Your task to perform on an android device: Open maps Image 0: 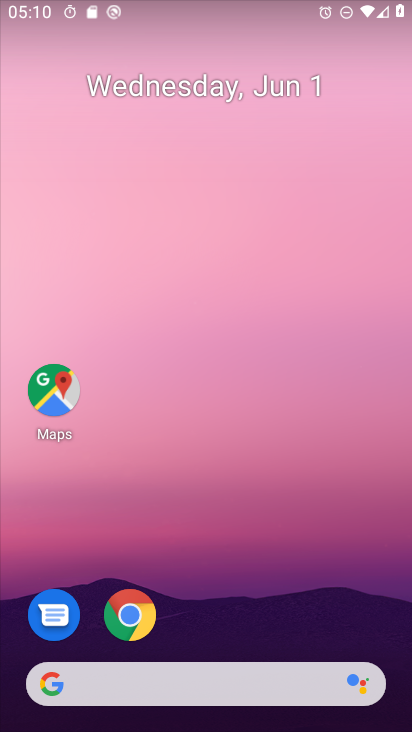
Step 0: drag from (326, 675) to (307, 82)
Your task to perform on an android device: Open maps Image 1: 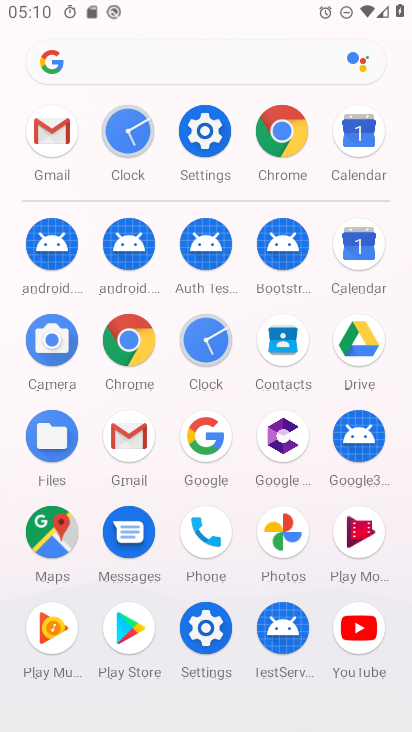
Step 1: click (43, 520)
Your task to perform on an android device: Open maps Image 2: 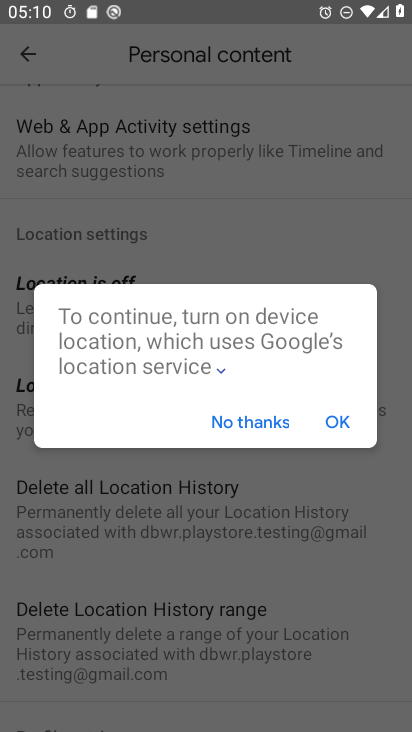
Step 2: click (288, 427)
Your task to perform on an android device: Open maps Image 3: 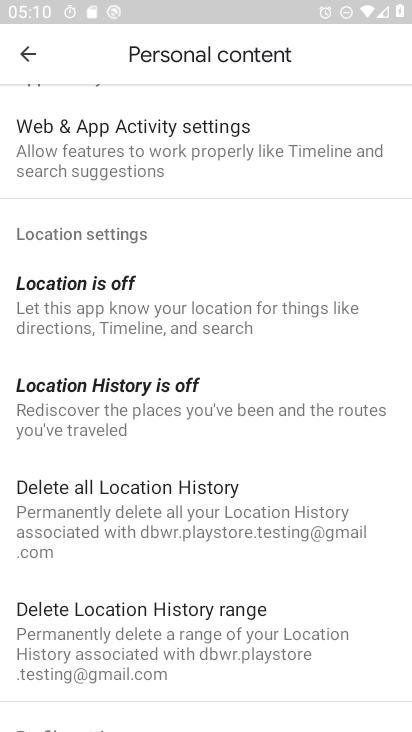
Step 3: task complete